Your task to perform on an android device: Show me popular videos on Youtube Image 0: 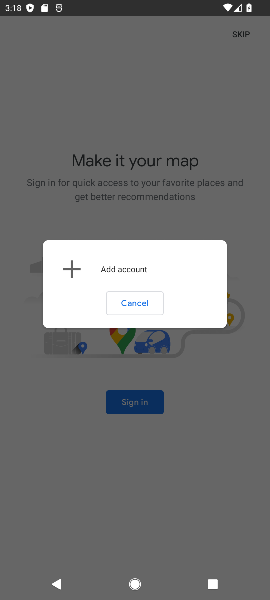
Step 0: press home button
Your task to perform on an android device: Show me popular videos on Youtube Image 1: 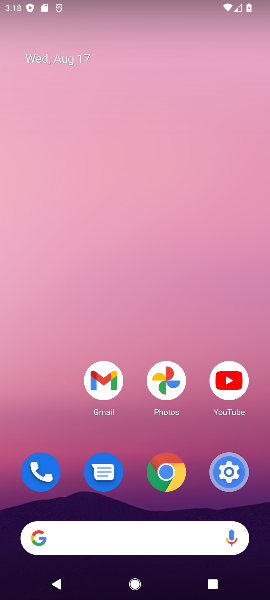
Step 1: drag from (131, 438) to (176, 48)
Your task to perform on an android device: Show me popular videos on Youtube Image 2: 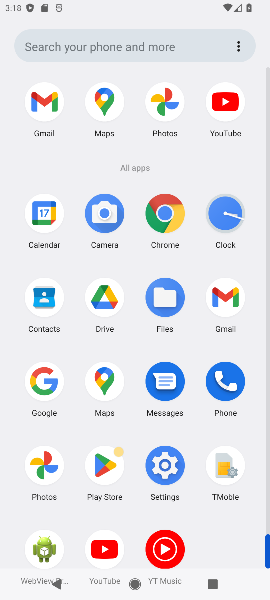
Step 2: click (241, 106)
Your task to perform on an android device: Show me popular videos on Youtube Image 3: 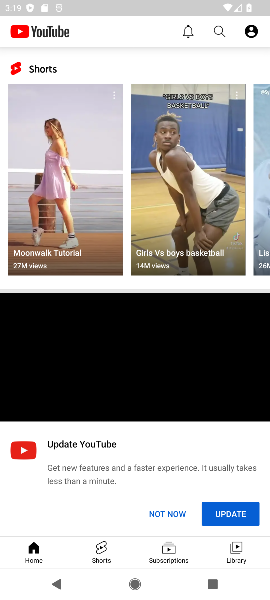
Step 3: click (223, 29)
Your task to perform on an android device: Show me popular videos on Youtube Image 4: 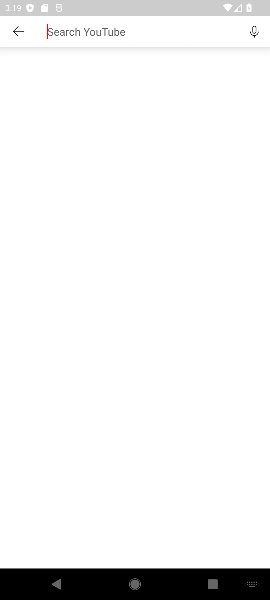
Step 4: click (158, 30)
Your task to perform on an android device: Show me popular videos on Youtube Image 5: 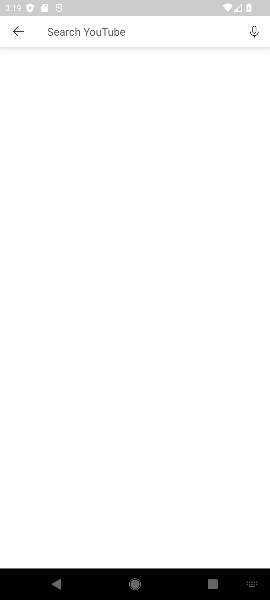
Step 5: type "popular videos"
Your task to perform on an android device: Show me popular videos on Youtube Image 6: 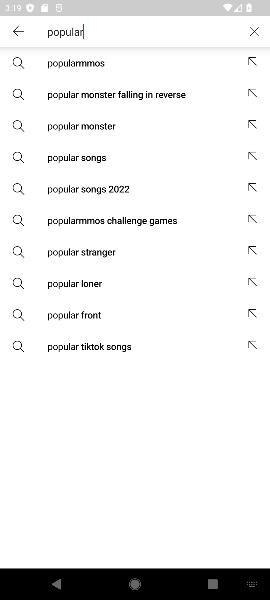
Step 6: type ""
Your task to perform on an android device: Show me popular videos on Youtube Image 7: 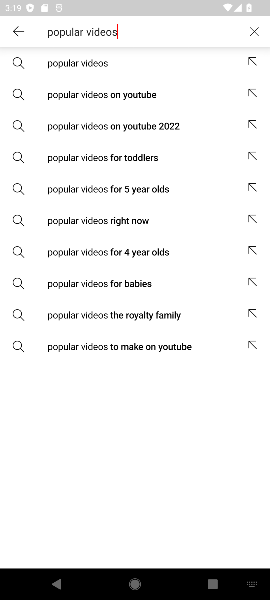
Step 7: click (124, 62)
Your task to perform on an android device: Show me popular videos on Youtube Image 8: 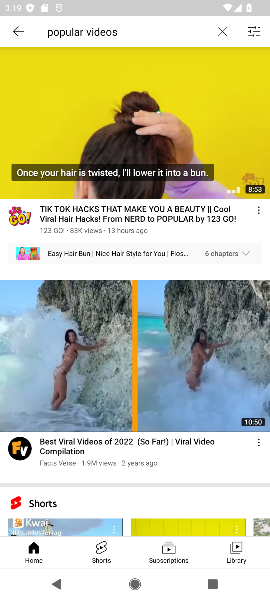
Step 8: task complete